Your task to perform on an android device: Set the phone to "Do not disturb". Image 0: 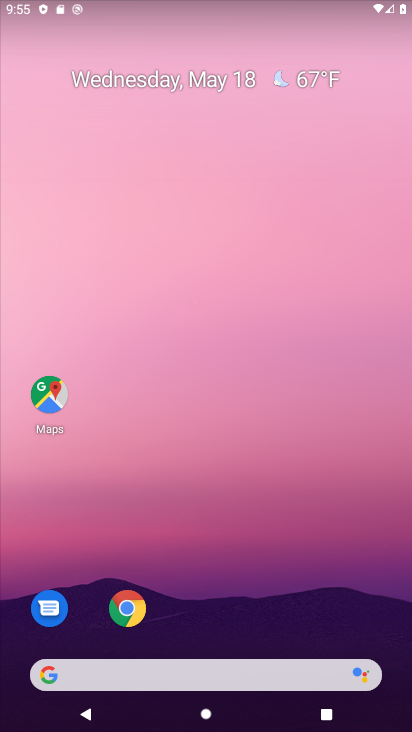
Step 0: drag from (187, 631) to (237, 129)
Your task to perform on an android device: Set the phone to "Do not disturb". Image 1: 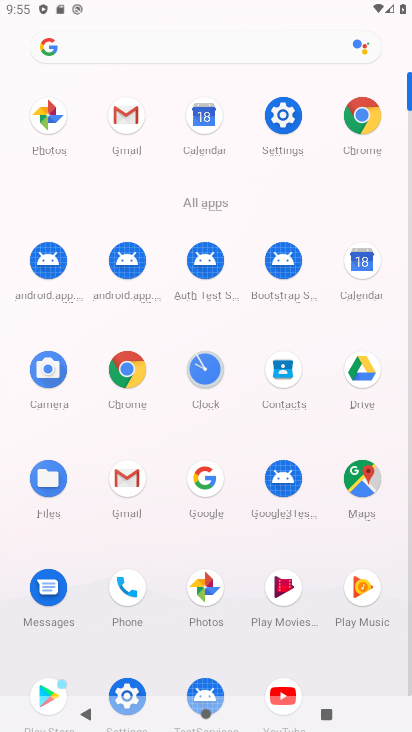
Step 1: click (297, 132)
Your task to perform on an android device: Set the phone to "Do not disturb". Image 2: 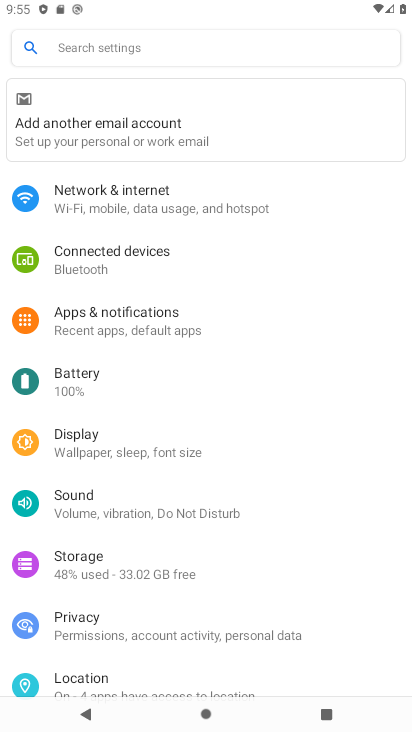
Step 2: click (106, 509)
Your task to perform on an android device: Set the phone to "Do not disturb". Image 3: 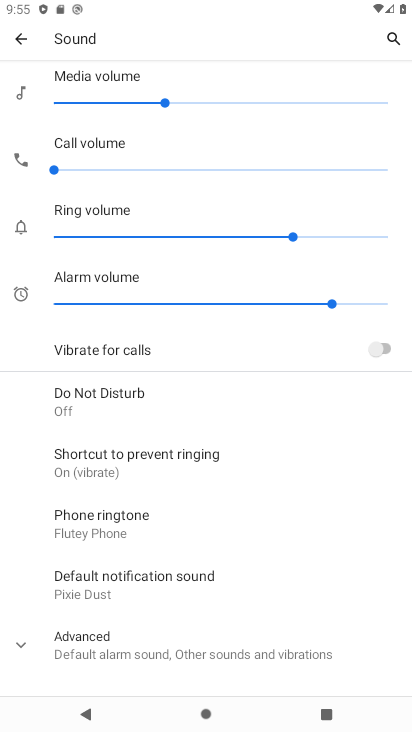
Step 3: click (81, 403)
Your task to perform on an android device: Set the phone to "Do not disturb". Image 4: 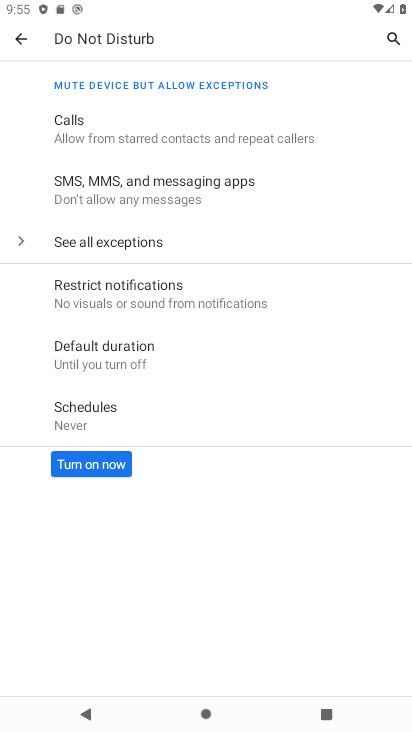
Step 4: click (103, 467)
Your task to perform on an android device: Set the phone to "Do not disturb". Image 5: 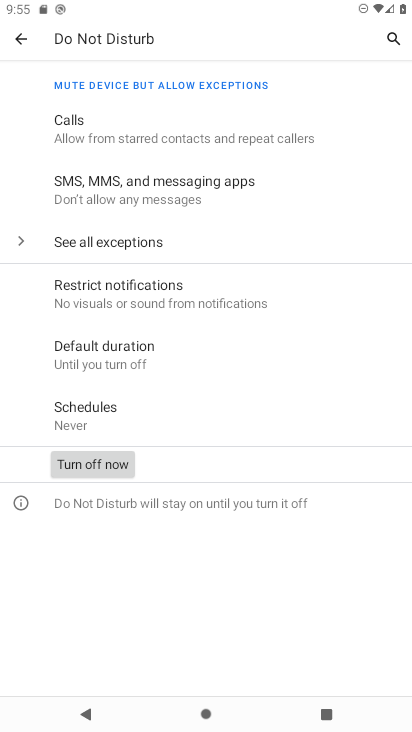
Step 5: task complete